Your task to perform on an android device: What's the weather going to be this weekend? Image 0: 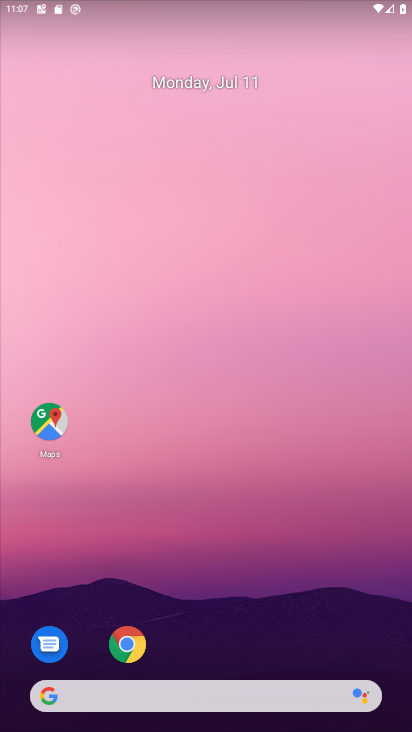
Step 0: click (232, 694)
Your task to perform on an android device: What's the weather going to be this weekend? Image 1: 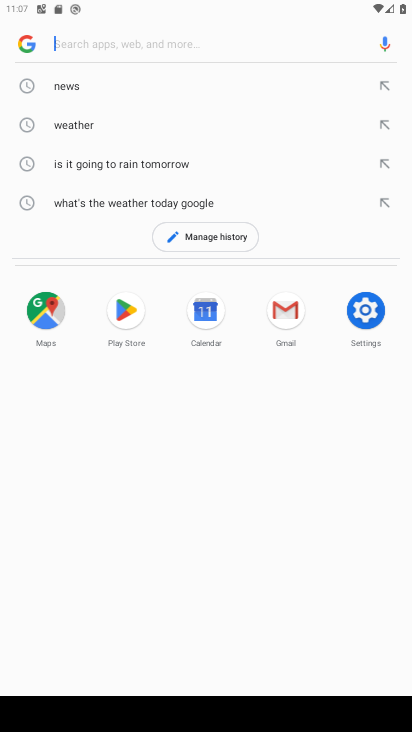
Step 1: type "what's the weather going to be this weekend ?"
Your task to perform on an android device: What's the weather going to be this weekend? Image 2: 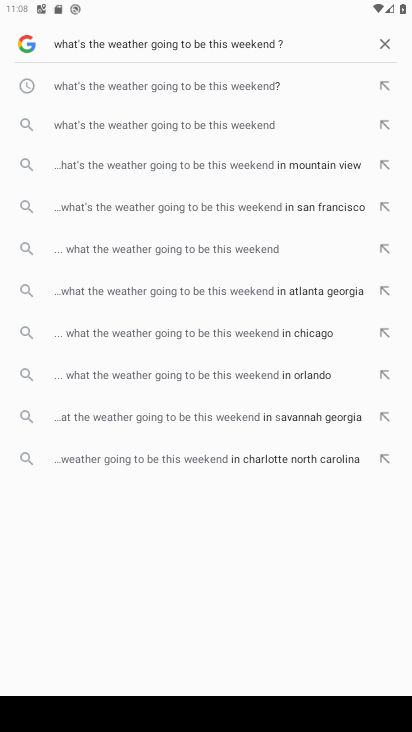
Step 2: click (272, 80)
Your task to perform on an android device: What's the weather going to be this weekend? Image 3: 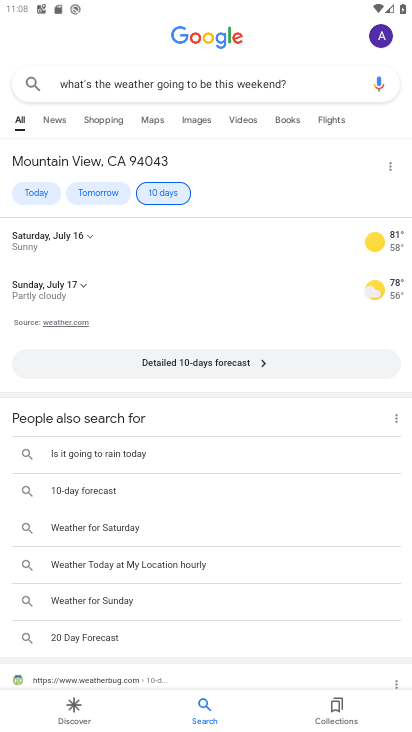
Step 3: task complete